Your task to perform on an android device: Open network settings Image 0: 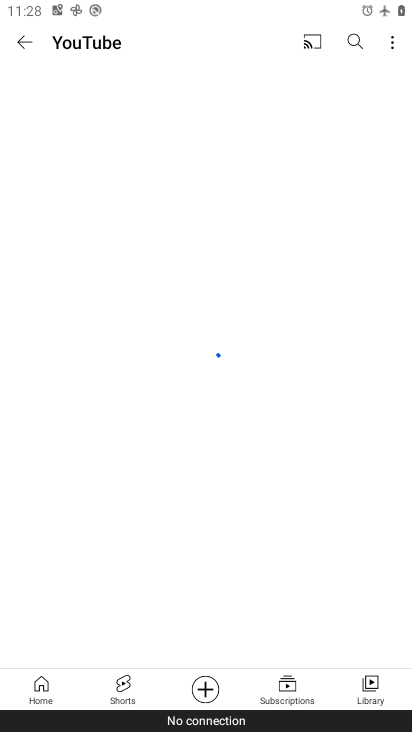
Step 0: press home button
Your task to perform on an android device: Open network settings Image 1: 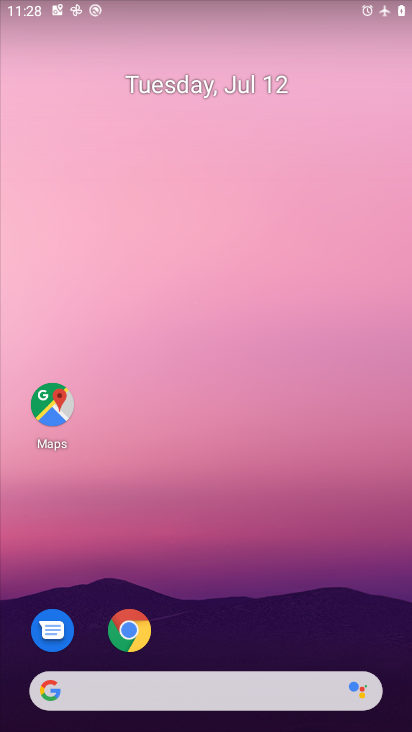
Step 1: drag from (316, 603) to (344, 22)
Your task to perform on an android device: Open network settings Image 2: 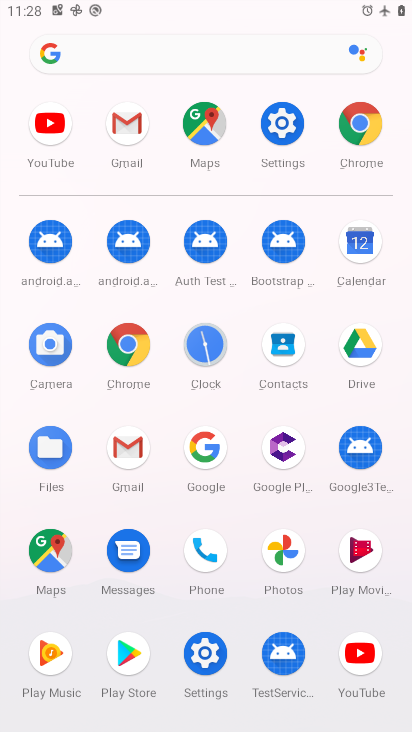
Step 2: click (293, 135)
Your task to perform on an android device: Open network settings Image 3: 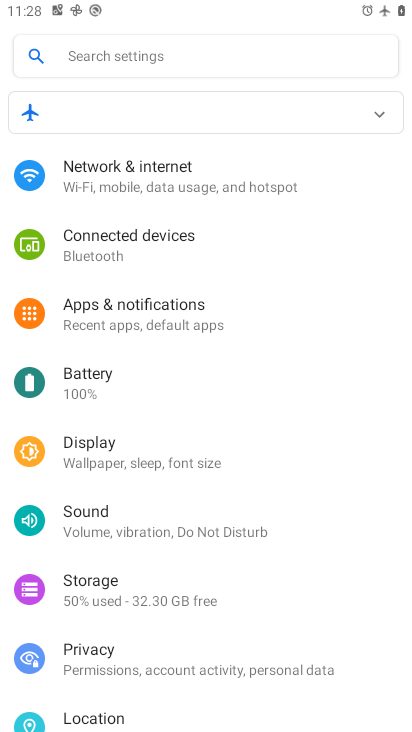
Step 3: click (86, 179)
Your task to perform on an android device: Open network settings Image 4: 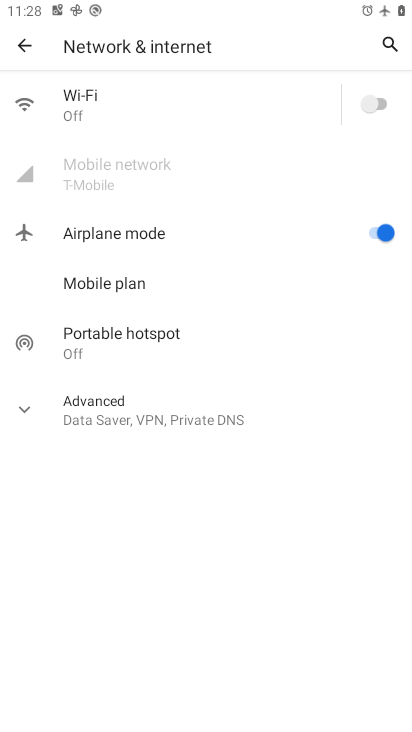
Step 4: task complete